Your task to perform on an android device: Empty the shopping cart on ebay.com. Image 0: 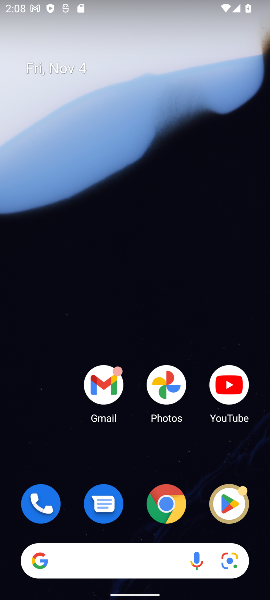
Step 0: press home button
Your task to perform on an android device: Empty the shopping cart on ebay.com. Image 1: 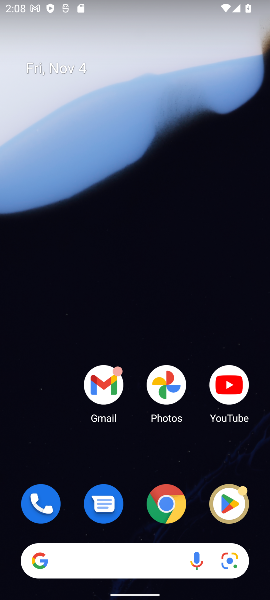
Step 1: click (164, 507)
Your task to perform on an android device: Empty the shopping cart on ebay.com. Image 2: 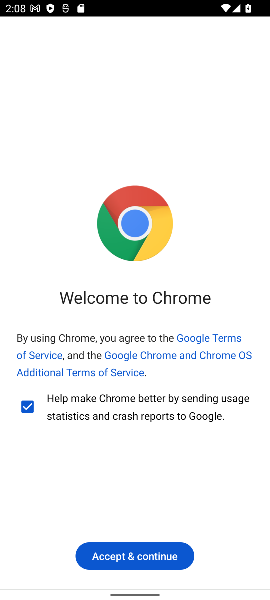
Step 2: click (144, 550)
Your task to perform on an android device: Empty the shopping cart on ebay.com. Image 3: 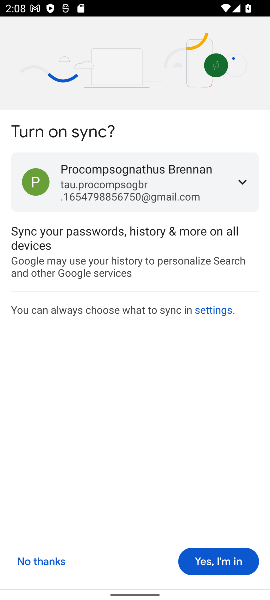
Step 3: click (197, 561)
Your task to perform on an android device: Empty the shopping cart on ebay.com. Image 4: 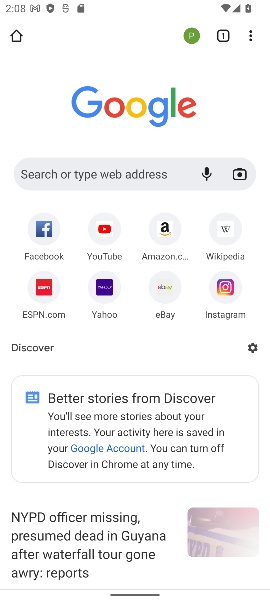
Step 4: click (161, 294)
Your task to perform on an android device: Empty the shopping cart on ebay.com. Image 5: 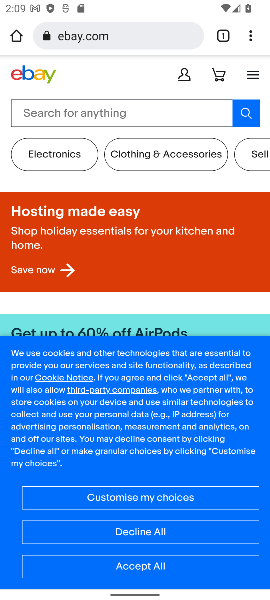
Step 5: click (217, 78)
Your task to perform on an android device: Empty the shopping cart on ebay.com. Image 6: 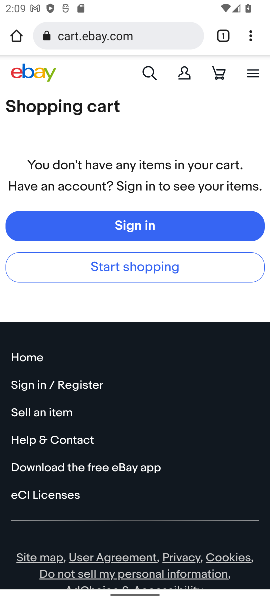
Step 6: task complete